Your task to perform on an android device: turn pop-ups on in chrome Image 0: 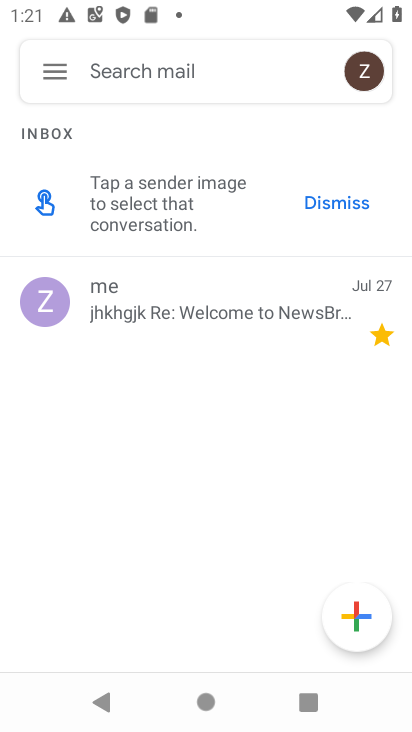
Step 0: press home button
Your task to perform on an android device: turn pop-ups on in chrome Image 1: 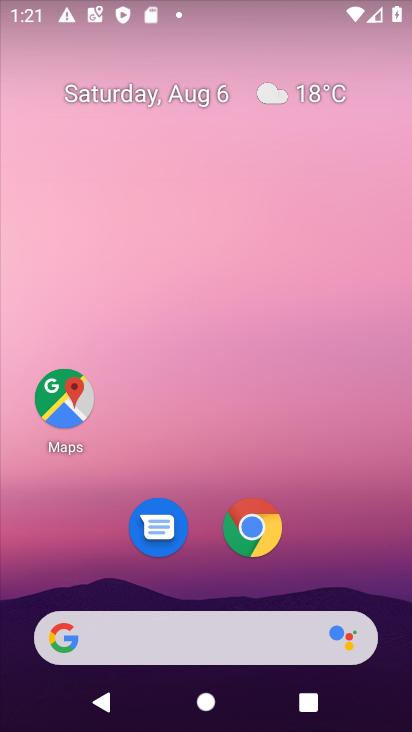
Step 1: drag from (212, 580) to (193, 139)
Your task to perform on an android device: turn pop-ups on in chrome Image 2: 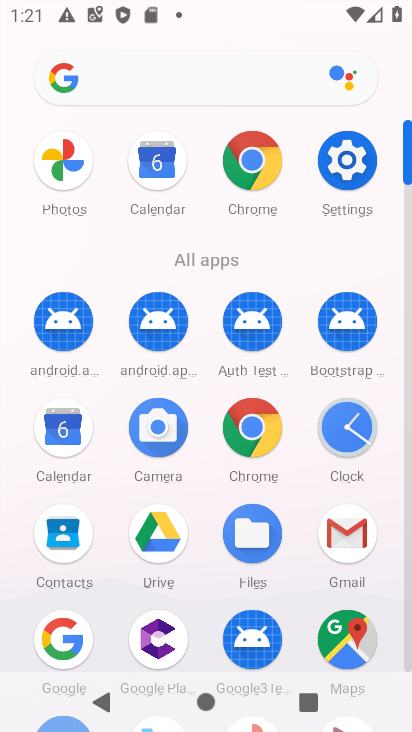
Step 2: click (259, 433)
Your task to perform on an android device: turn pop-ups on in chrome Image 3: 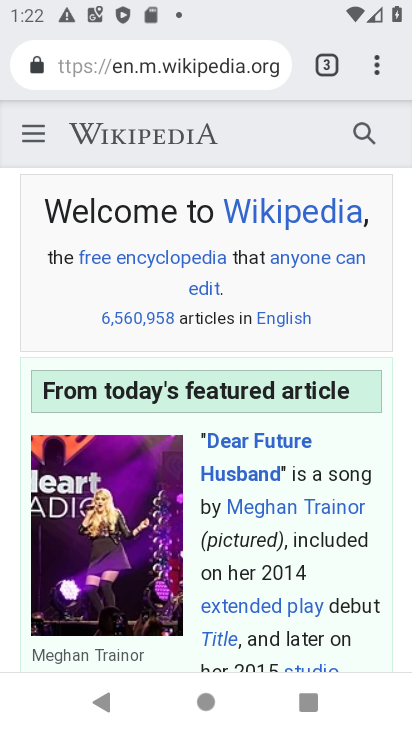
Step 3: click (380, 62)
Your task to perform on an android device: turn pop-ups on in chrome Image 4: 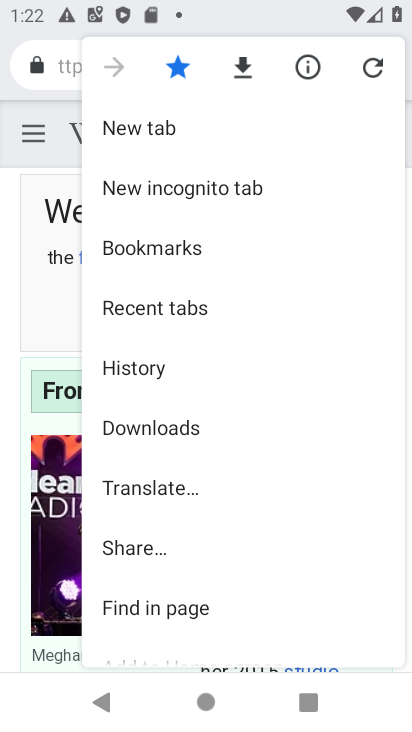
Step 4: drag from (206, 424) to (193, 183)
Your task to perform on an android device: turn pop-ups on in chrome Image 5: 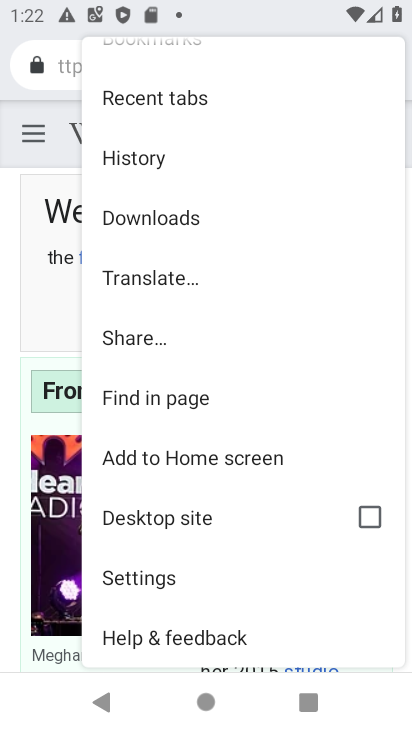
Step 5: click (190, 575)
Your task to perform on an android device: turn pop-ups on in chrome Image 6: 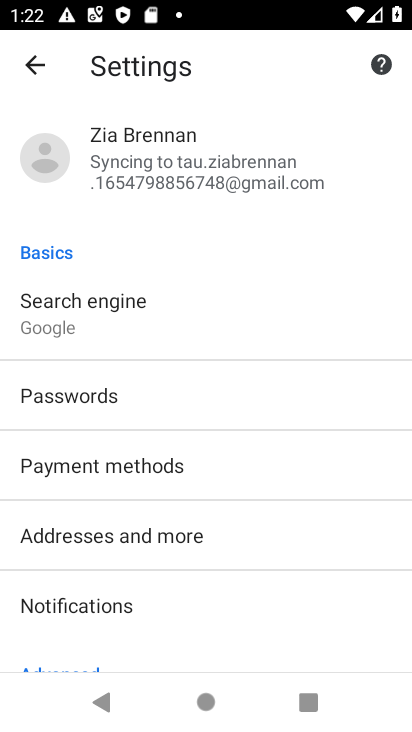
Step 6: drag from (176, 534) to (162, 280)
Your task to perform on an android device: turn pop-ups on in chrome Image 7: 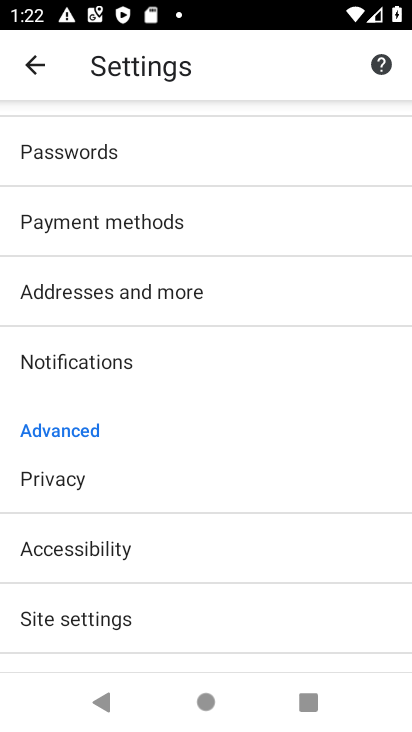
Step 7: click (141, 619)
Your task to perform on an android device: turn pop-ups on in chrome Image 8: 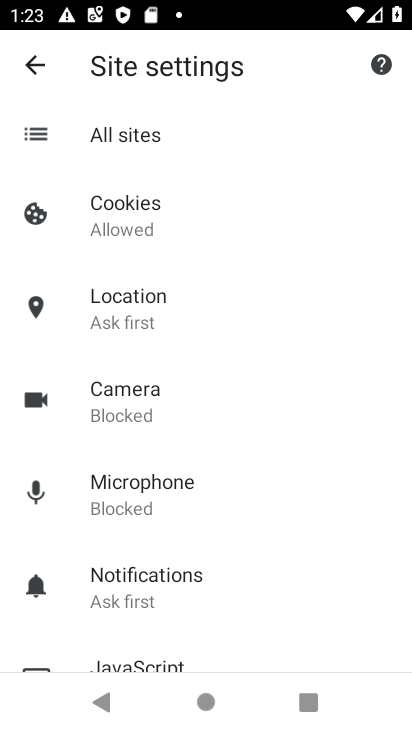
Step 8: drag from (210, 542) to (210, 184)
Your task to perform on an android device: turn pop-ups on in chrome Image 9: 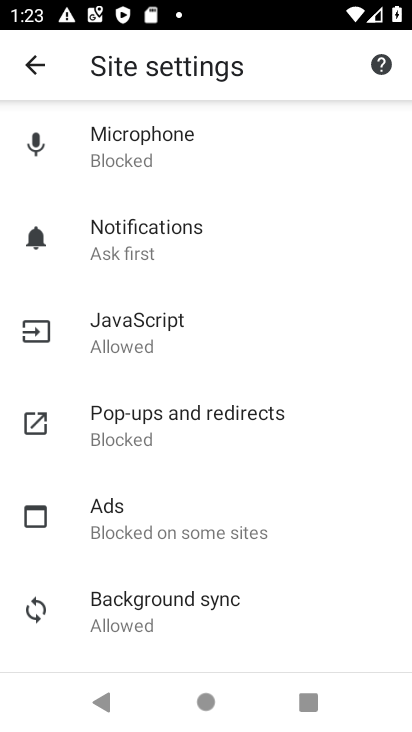
Step 9: click (225, 423)
Your task to perform on an android device: turn pop-ups on in chrome Image 10: 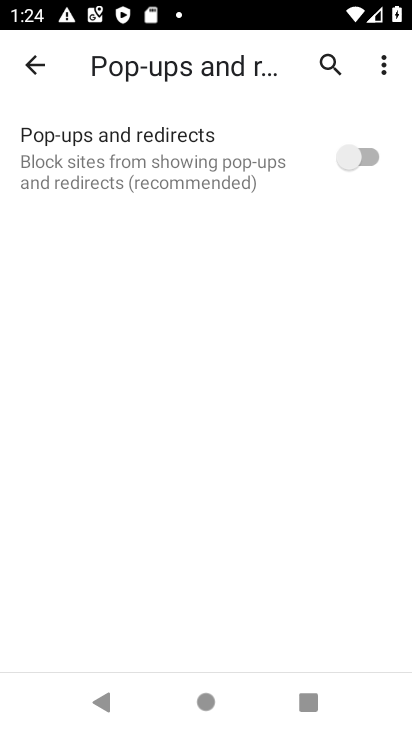
Step 10: click (333, 153)
Your task to perform on an android device: turn pop-ups on in chrome Image 11: 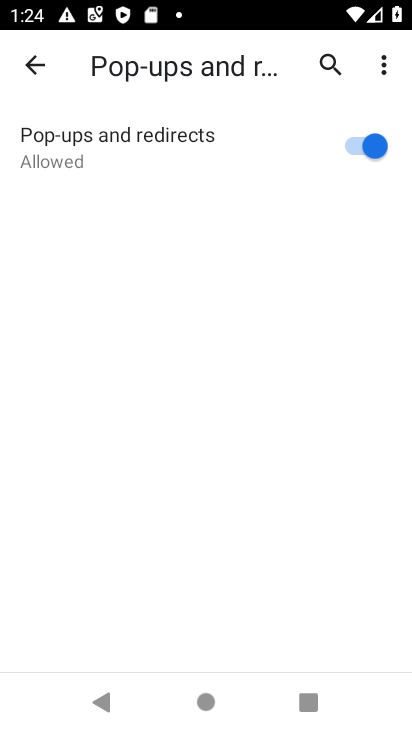
Step 11: task complete